Your task to perform on an android device: change the upload size in google photos Image 0: 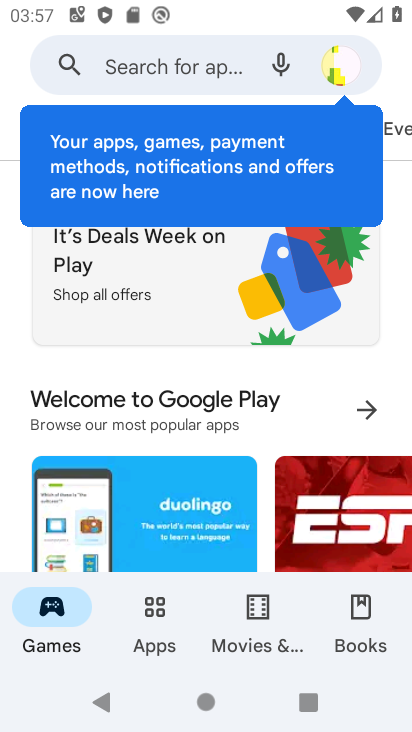
Step 0: press home button
Your task to perform on an android device: change the upload size in google photos Image 1: 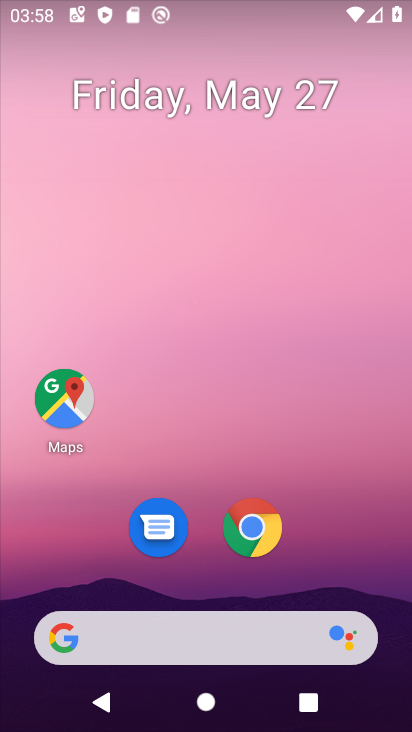
Step 1: drag from (383, 538) to (278, 94)
Your task to perform on an android device: change the upload size in google photos Image 2: 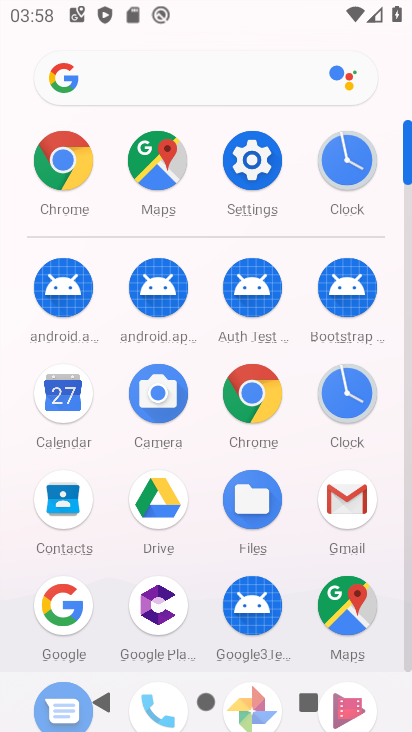
Step 2: click (404, 654)
Your task to perform on an android device: change the upload size in google photos Image 3: 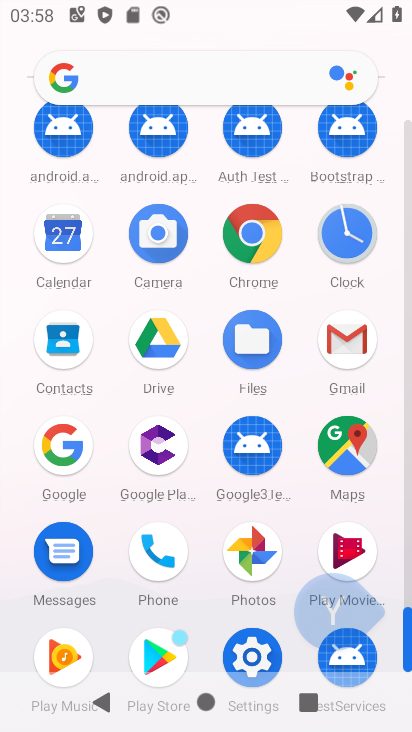
Step 3: click (404, 654)
Your task to perform on an android device: change the upload size in google photos Image 4: 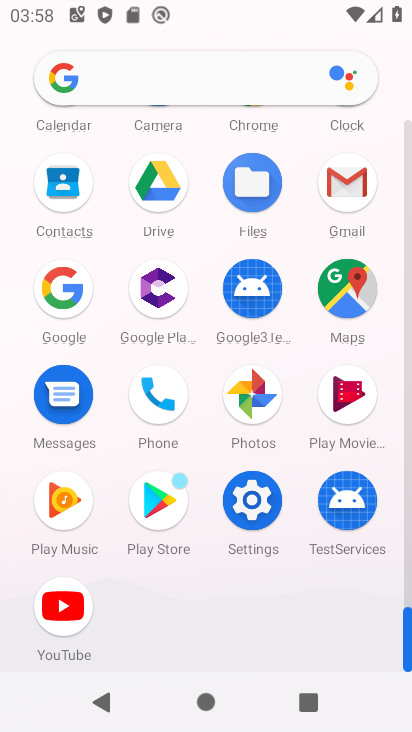
Step 4: click (237, 423)
Your task to perform on an android device: change the upload size in google photos Image 5: 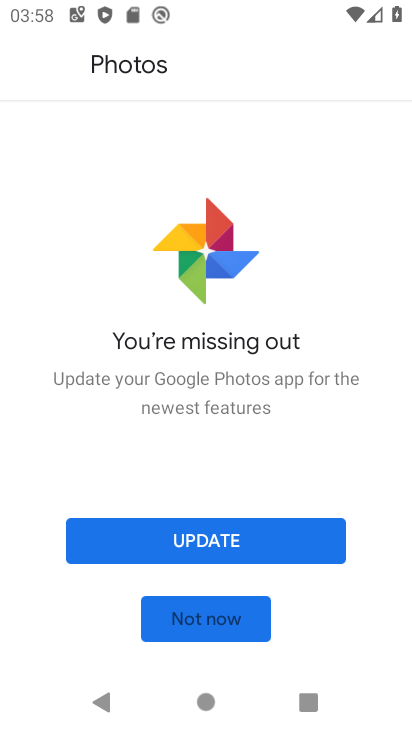
Step 5: click (239, 523)
Your task to perform on an android device: change the upload size in google photos Image 6: 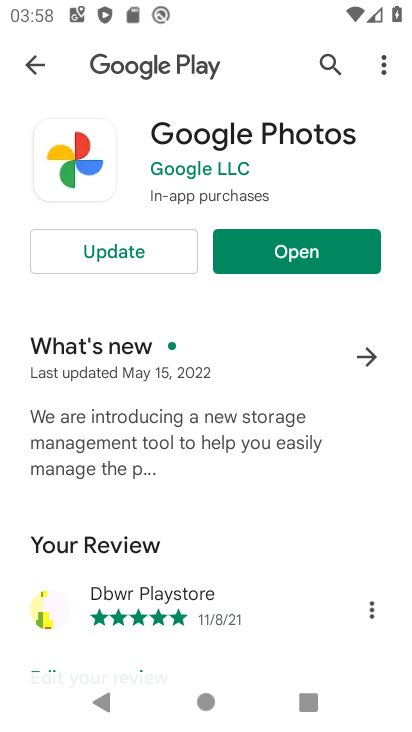
Step 6: click (114, 256)
Your task to perform on an android device: change the upload size in google photos Image 7: 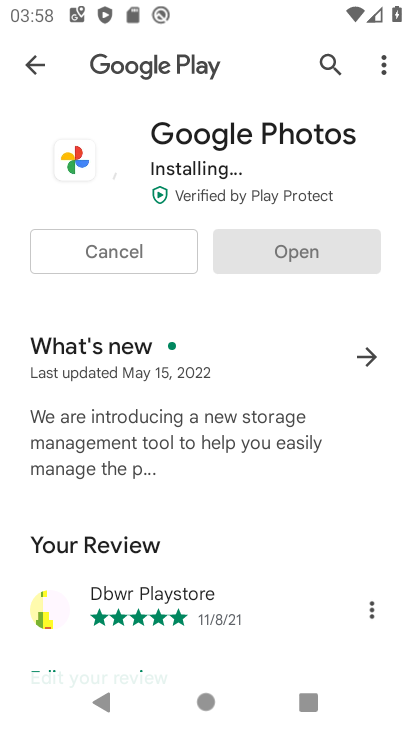
Step 7: click (290, 251)
Your task to perform on an android device: change the upload size in google photos Image 8: 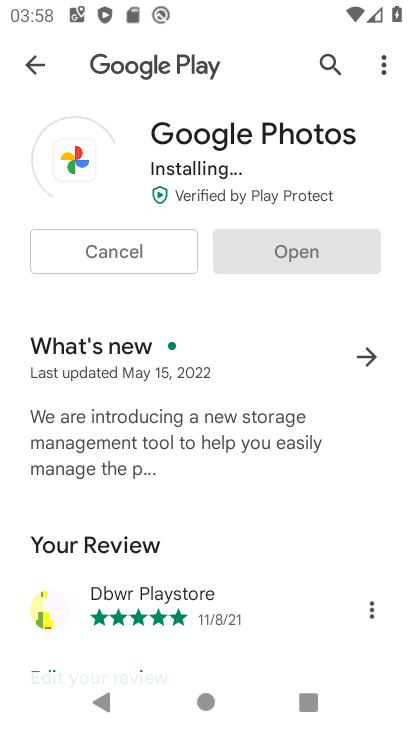
Step 8: click (290, 251)
Your task to perform on an android device: change the upload size in google photos Image 9: 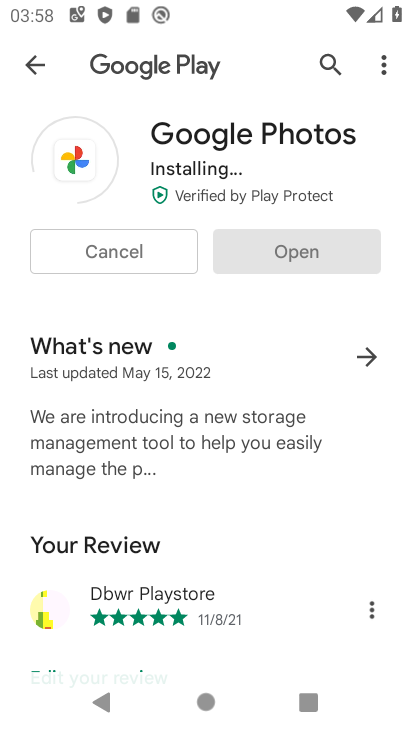
Step 9: click (290, 251)
Your task to perform on an android device: change the upload size in google photos Image 10: 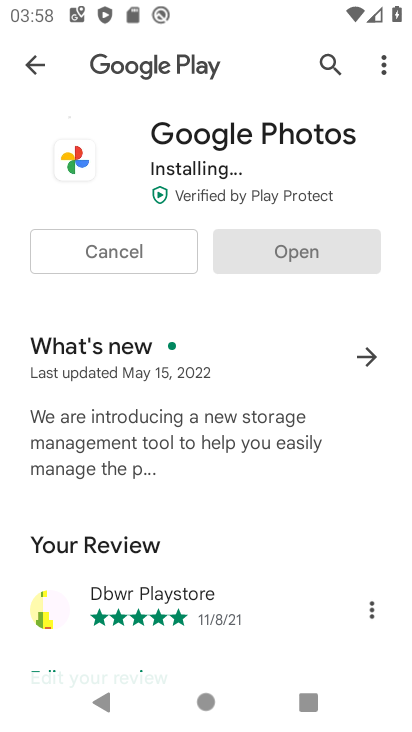
Step 10: click (290, 251)
Your task to perform on an android device: change the upload size in google photos Image 11: 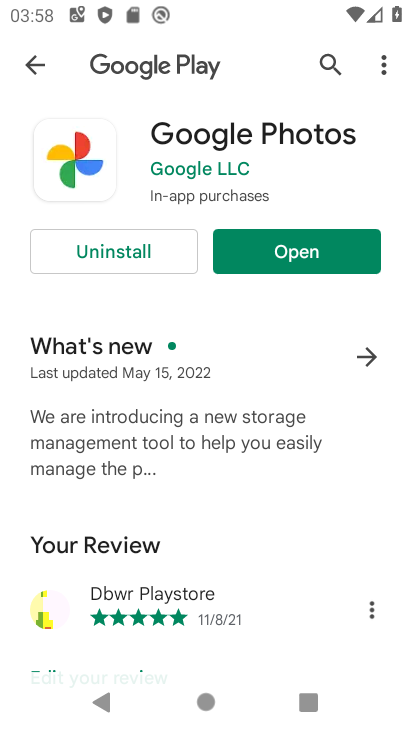
Step 11: click (290, 251)
Your task to perform on an android device: change the upload size in google photos Image 12: 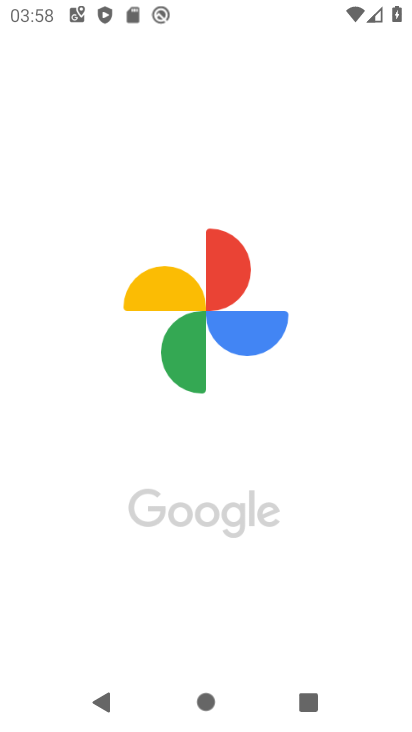
Step 12: click (290, 251)
Your task to perform on an android device: change the upload size in google photos Image 13: 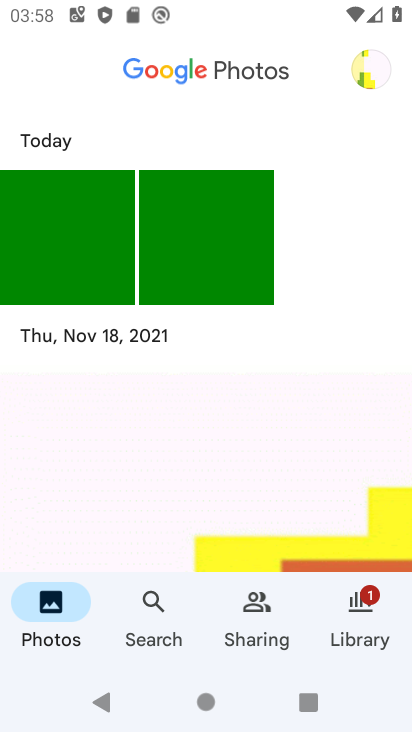
Step 13: click (386, 74)
Your task to perform on an android device: change the upload size in google photos Image 14: 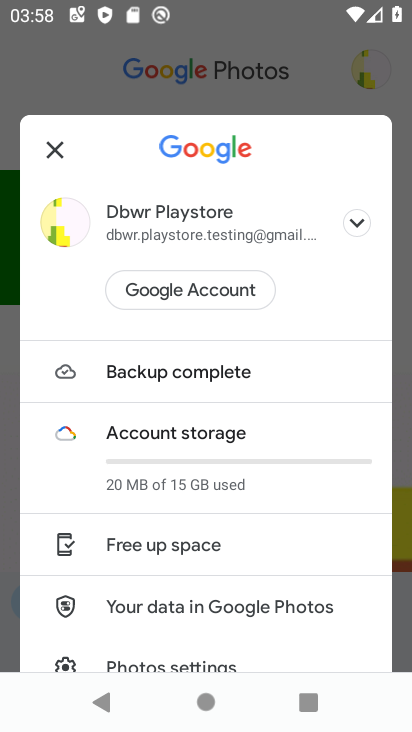
Step 14: click (132, 655)
Your task to perform on an android device: change the upload size in google photos Image 15: 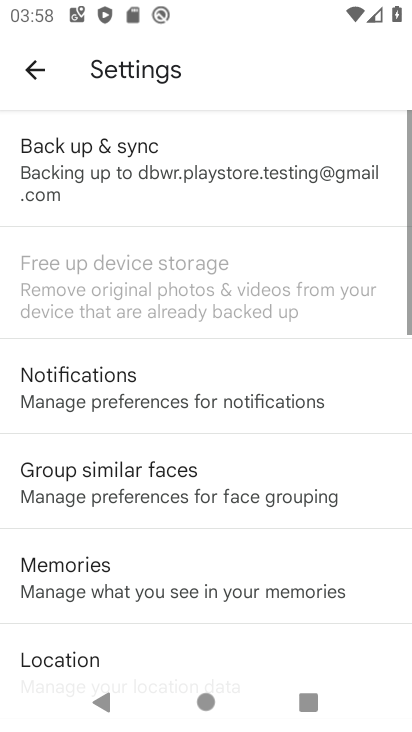
Step 15: click (77, 188)
Your task to perform on an android device: change the upload size in google photos Image 16: 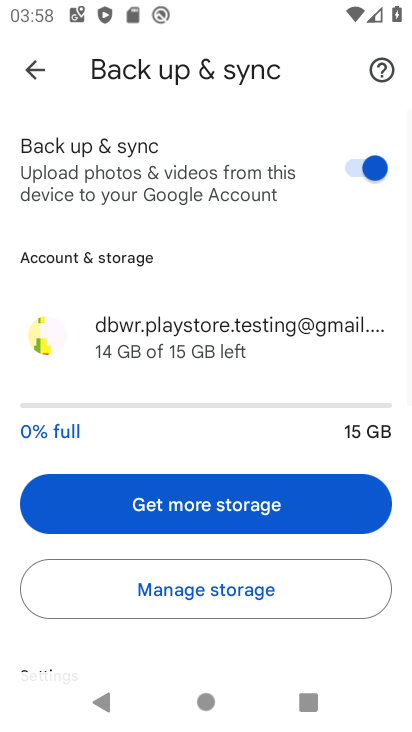
Step 16: drag from (202, 621) to (194, 96)
Your task to perform on an android device: change the upload size in google photos Image 17: 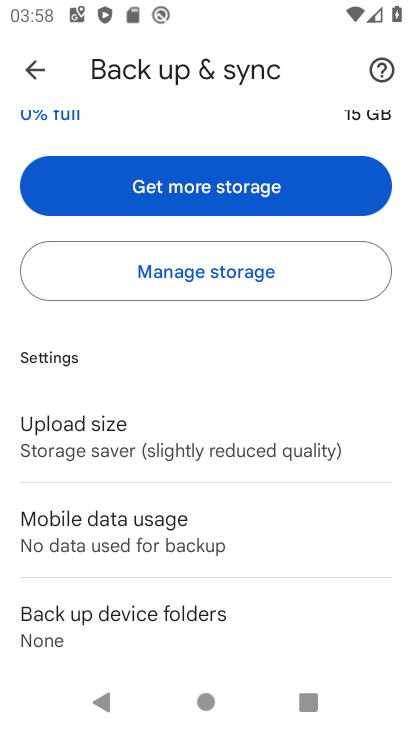
Step 17: click (133, 445)
Your task to perform on an android device: change the upload size in google photos Image 18: 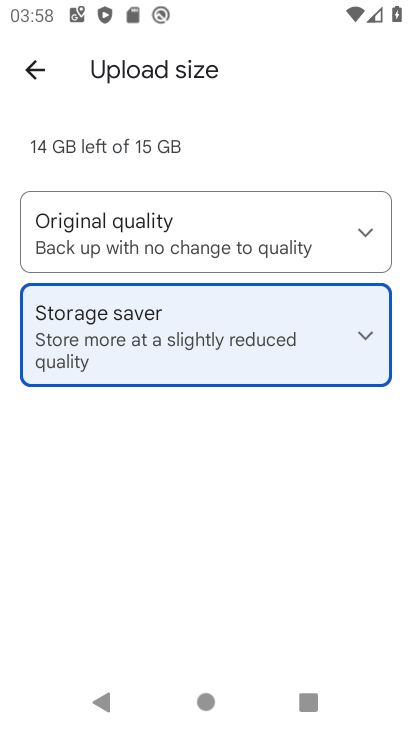
Step 18: click (154, 230)
Your task to perform on an android device: change the upload size in google photos Image 19: 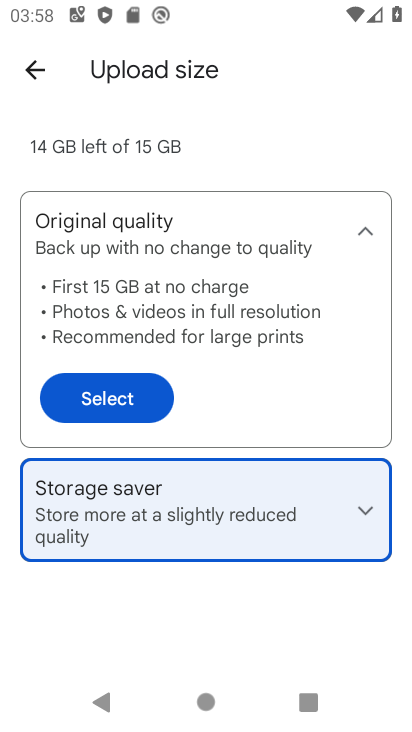
Step 19: click (129, 404)
Your task to perform on an android device: change the upload size in google photos Image 20: 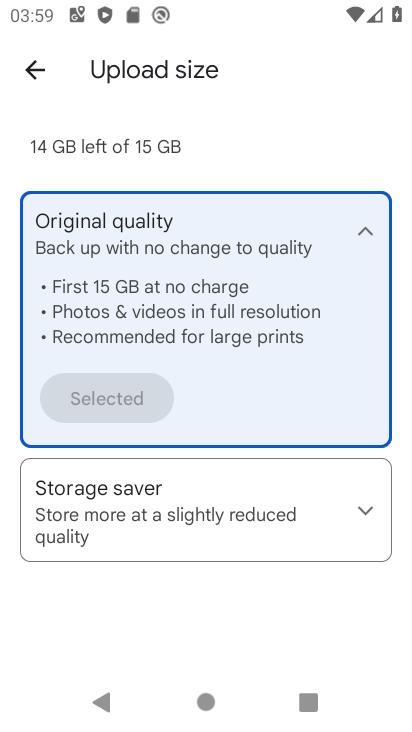
Step 20: task complete